Your task to perform on an android device: open app "Duolingo: language lessons" (install if not already installed) Image 0: 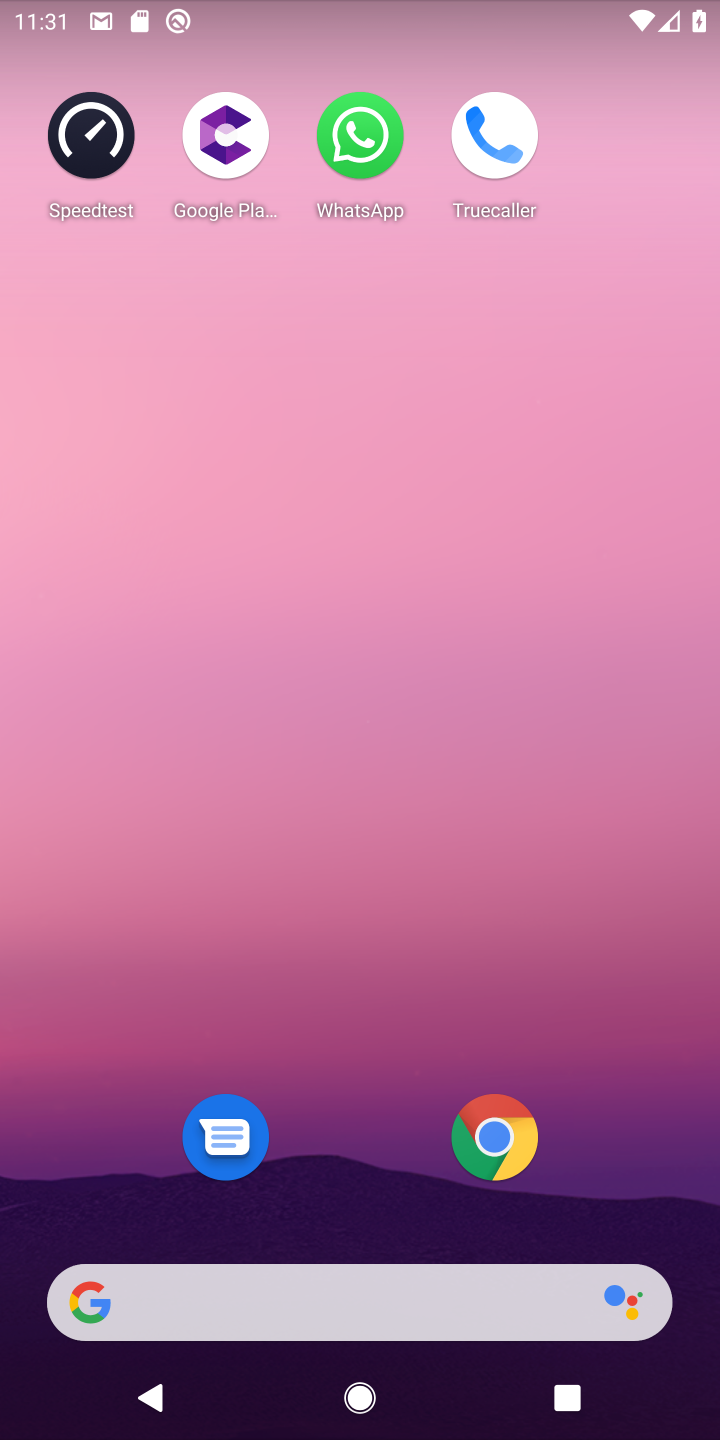
Step 0: drag from (356, 1229) to (407, 51)
Your task to perform on an android device: open app "Duolingo: language lessons" (install if not already installed) Image 1: 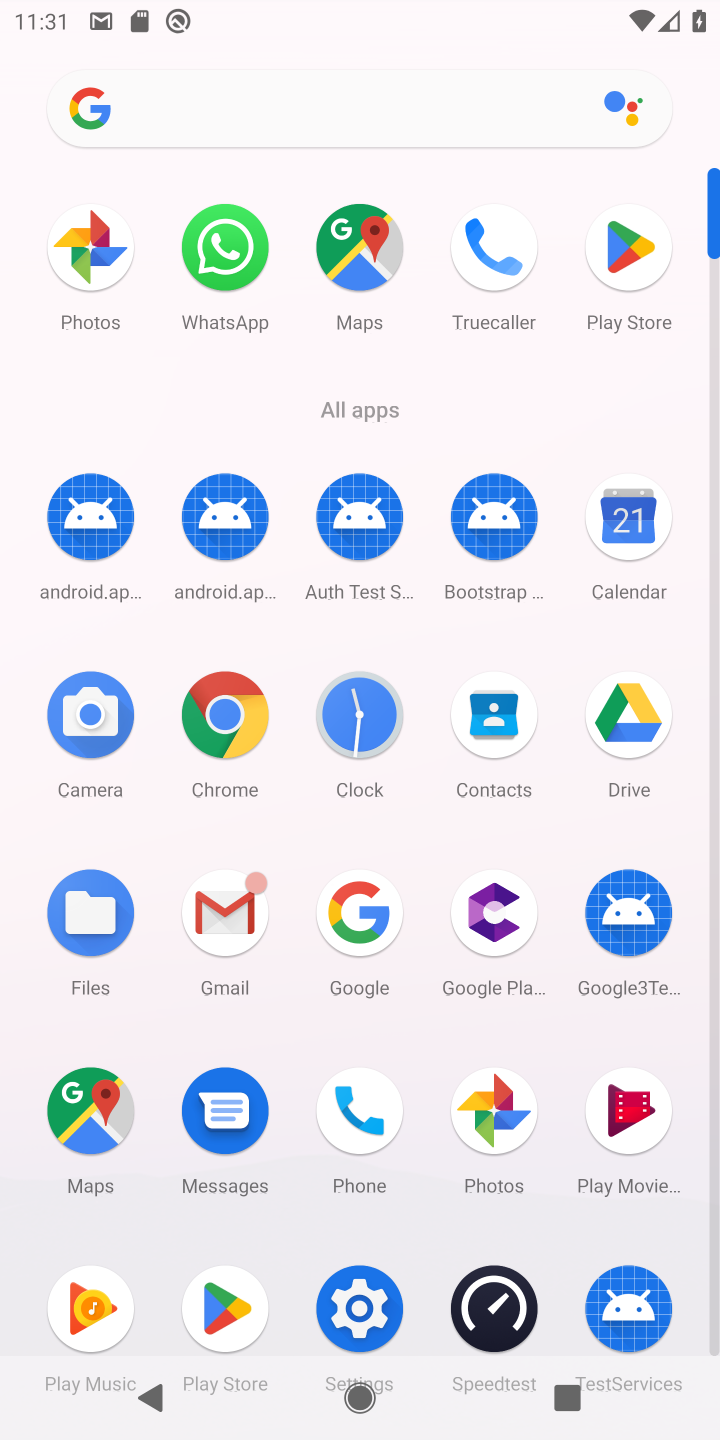
Step 1: click (223, 1308)
Your task to perform on an android device: open app "Duolingo: language lessons" (install if not already installed) Image 2: 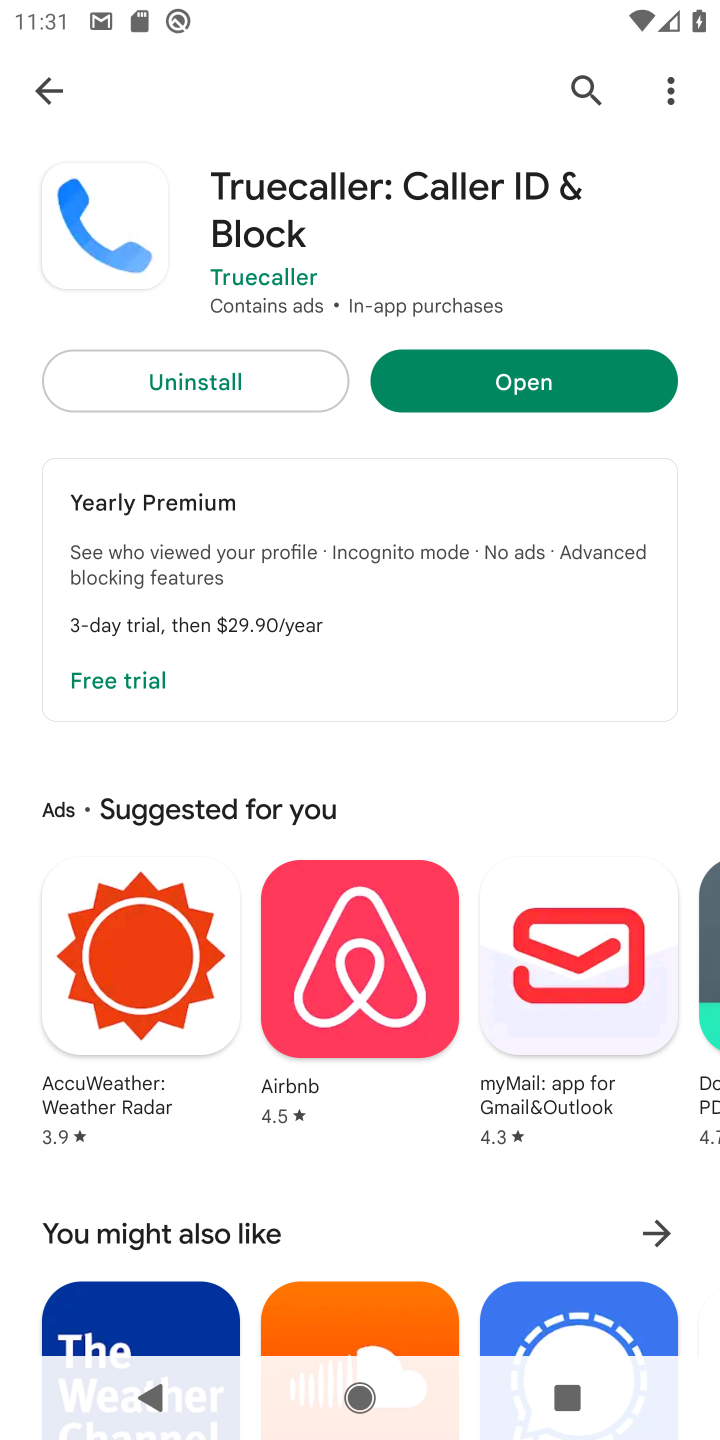
Step 2: click (582, 85)
Your task to perform on an android device: open app "Duolingo: language lessons" (install if not already installed) Image 3: 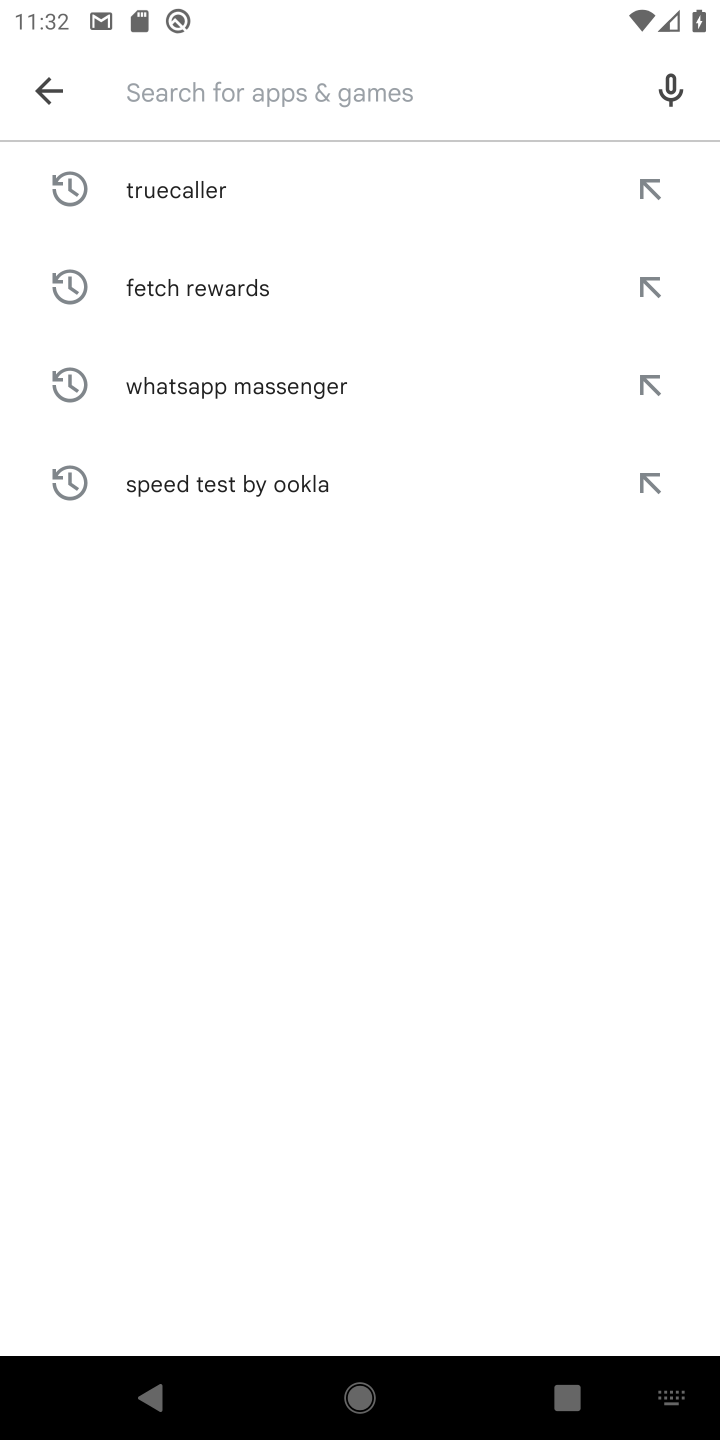
Step 3: type "duolingo"
Your task to perform on an android device: open app "Duolingo: language lessons" (install if not already installed) Image 4: 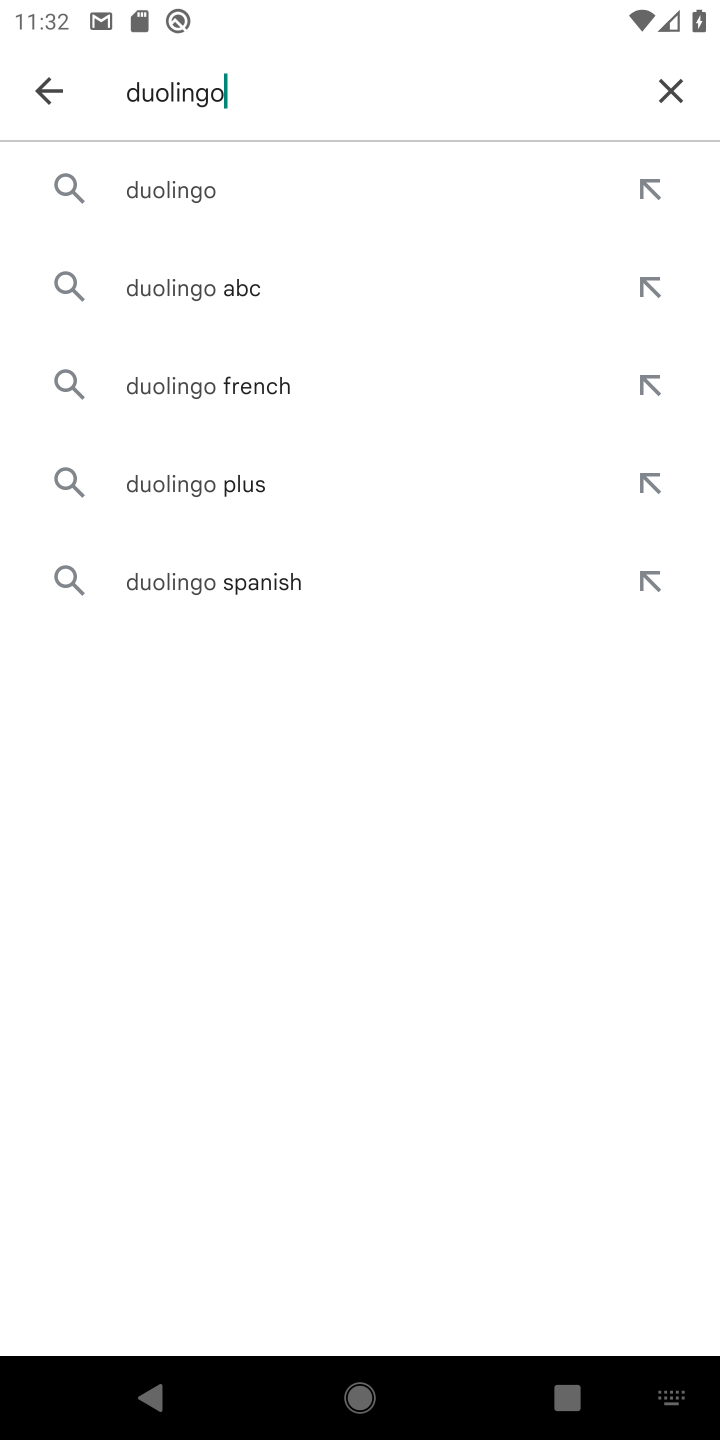
Step 4: click (219, 196)
Your task to perform on an android device: open app "Duolingo: language lessons" (install if not already installed) Image 5: 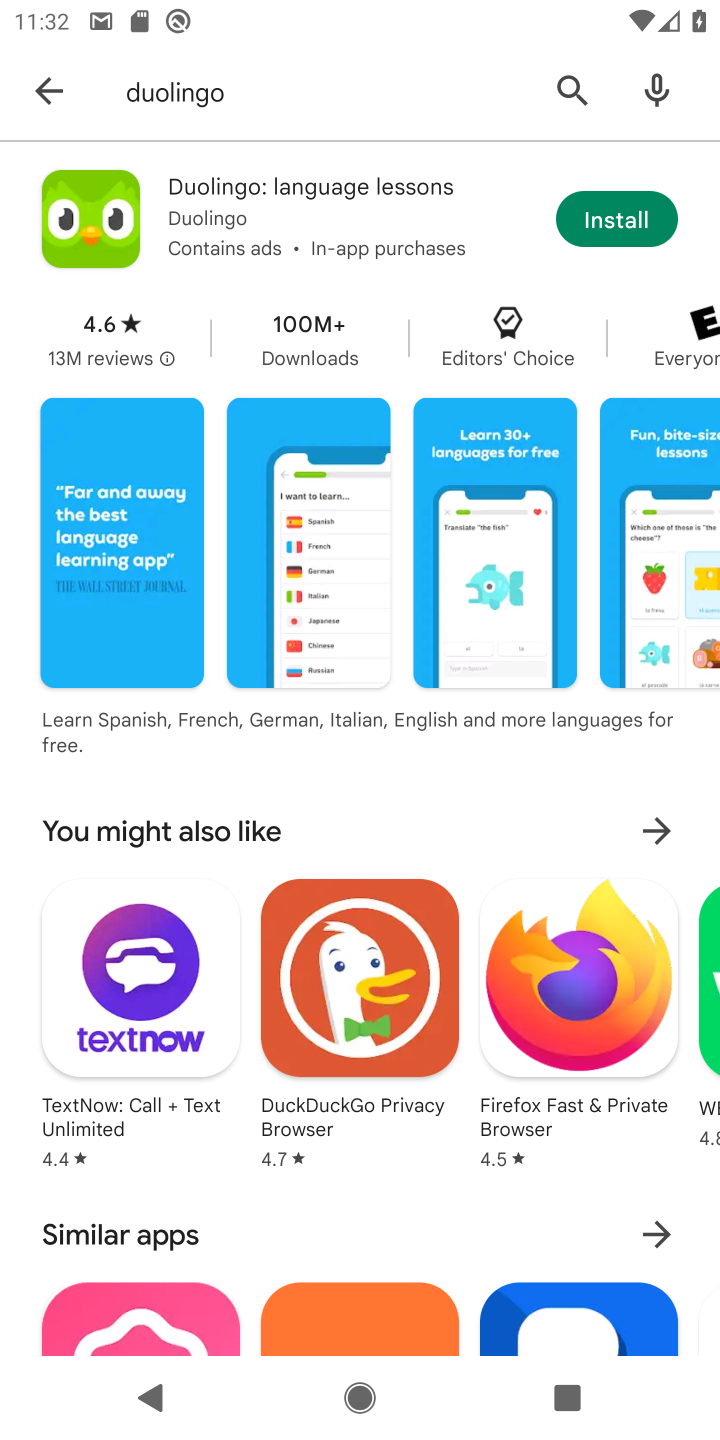
Step 5: click (613, 207)
Your task to perform on an android device: open app "Duolingo: language lessons" (install if not already installed) Image 6: 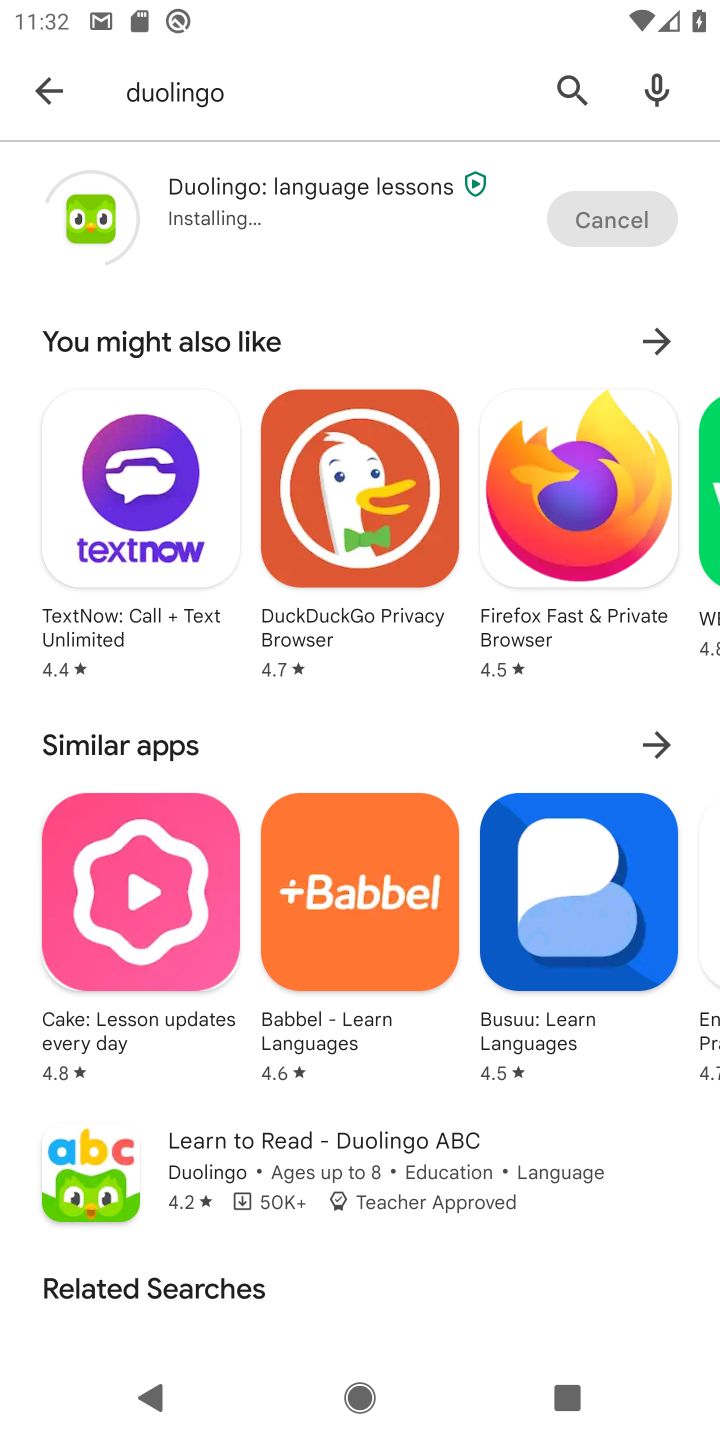
Step 6: click (211, 207)
Your task to perform on an android device: open app "Duolingo: language lessons" (install if not already installed) Image 7: 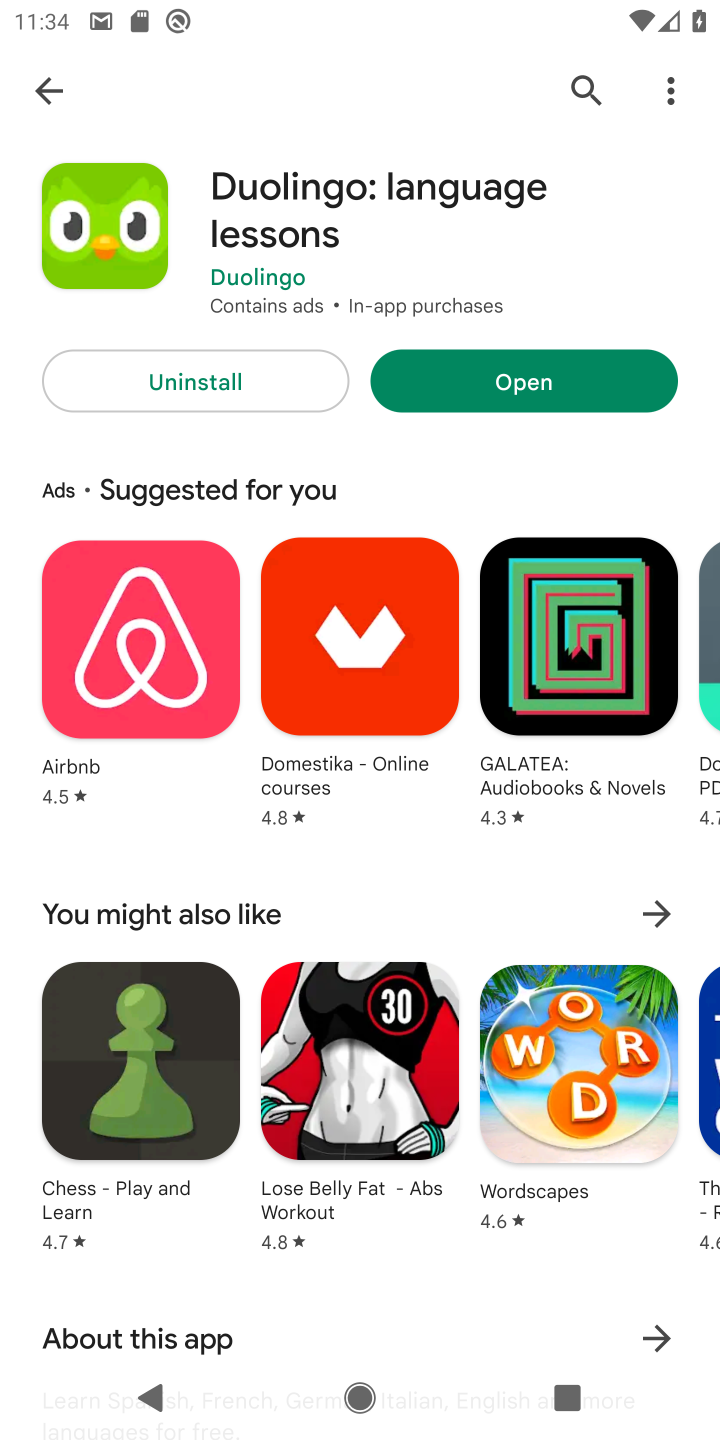
Step 7: click (524, 376)
Your task to perform on an android device: open app "Duolingo: language lessons" (install if not already installed) Image 8: 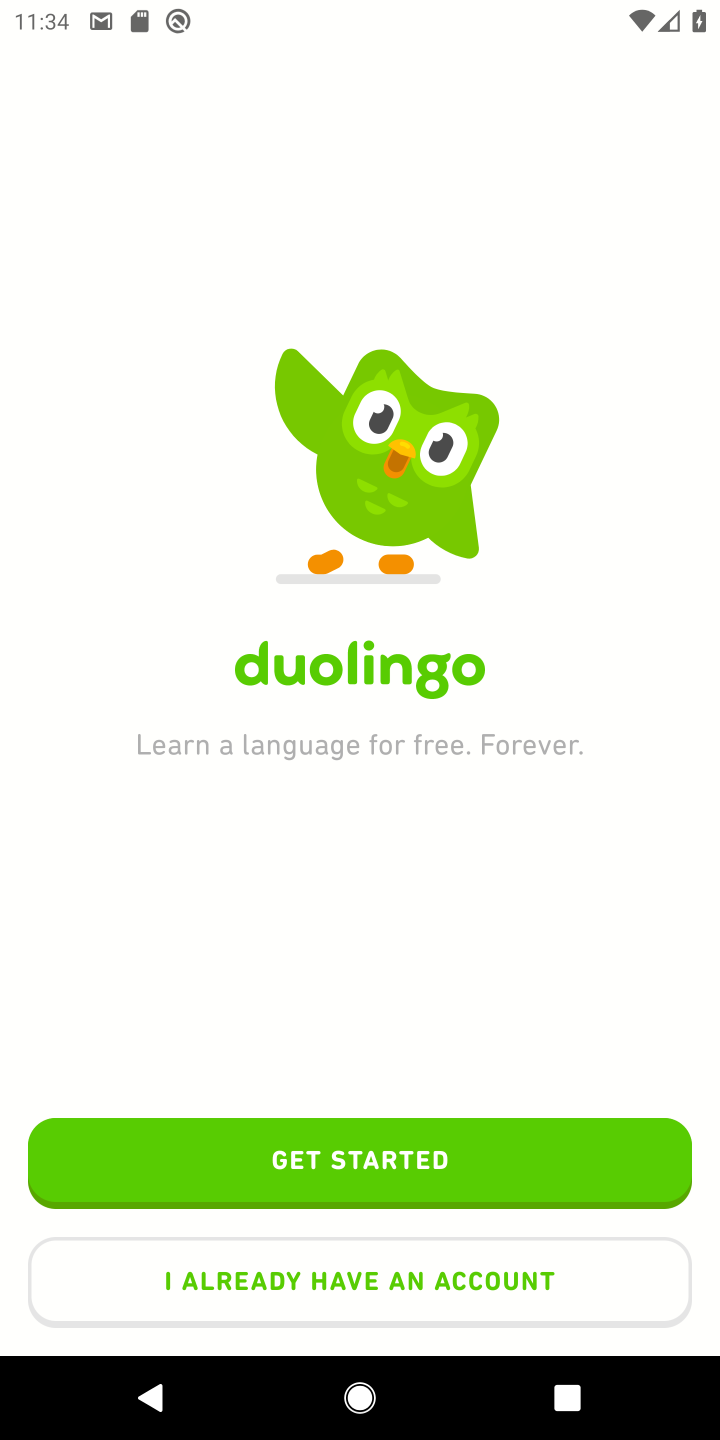
Step 8: task complete